Your task to perform on an android device: star an email in the gmail app Image 0: 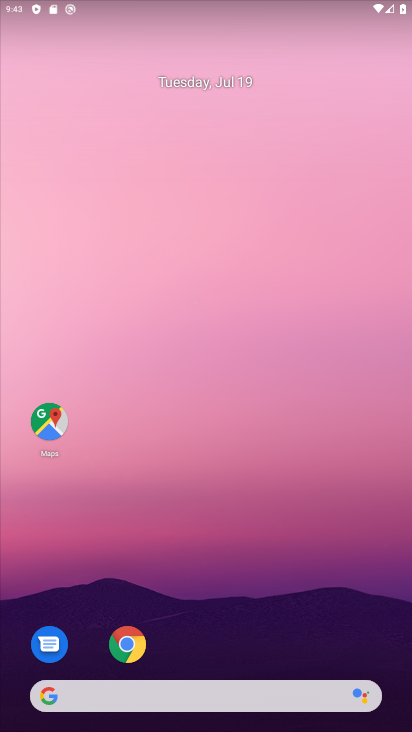
Step 0: drag from (230, 624) to (248, 290)
Your task to perform on an android device: star an email in the gmail app Image 1: 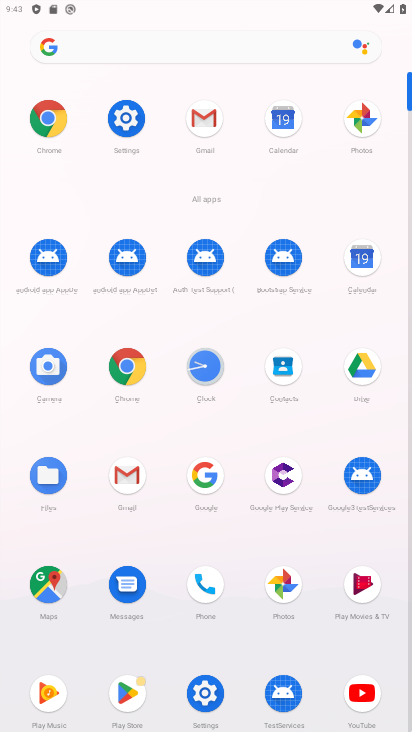
Step 1: click (135, 485)
Your task to perform on an android device: star an email in the gmail app Image 2: 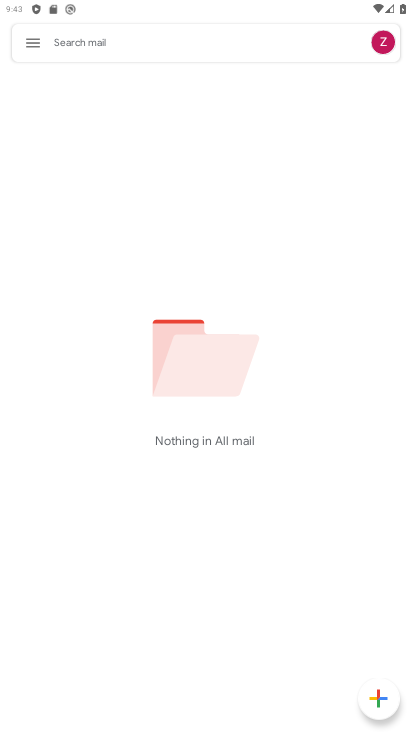
Step 2: task complete